Your task to perform on an android device: Show the shopping cart on costco.com. Add razer kraken to the cart on costco.com Image 0: 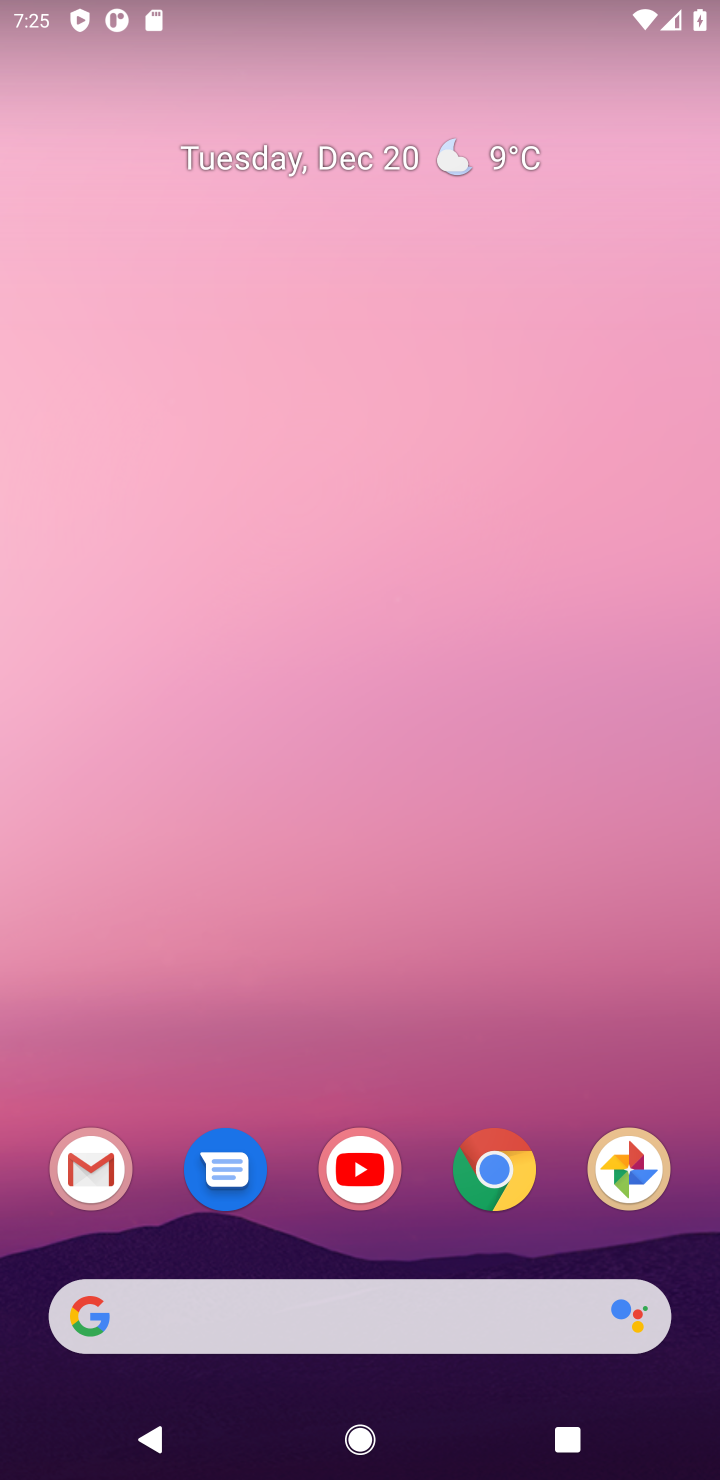
Step 0: click (489, 1186)
Your task to perform on an android device: Show the shopping cart on costco.com. Add razer kraken to the cart on costco.com Image 1: 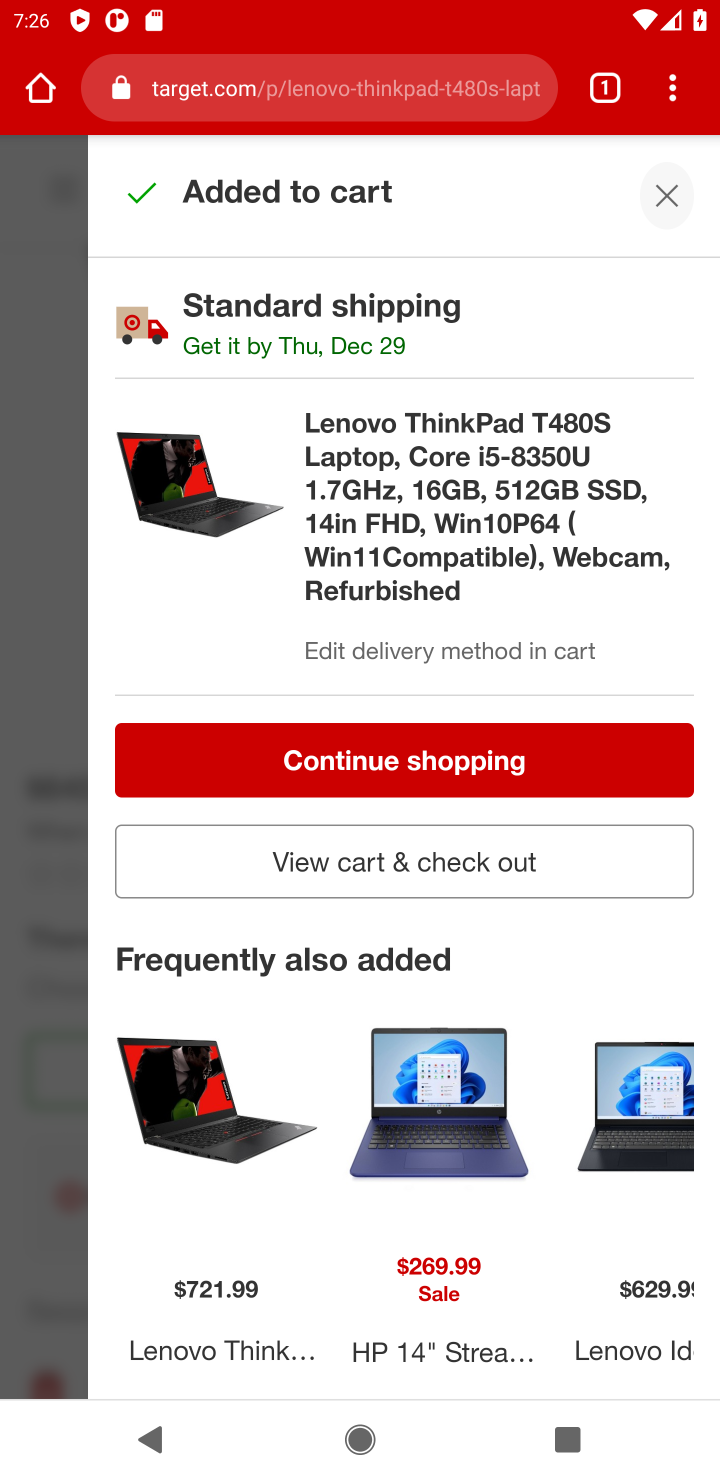
Step 1: click (669, 209)
Your task to perform on an android device: Show the shopping cart on costco.com. Add razer kraken to the cart on costco.com Image 2: 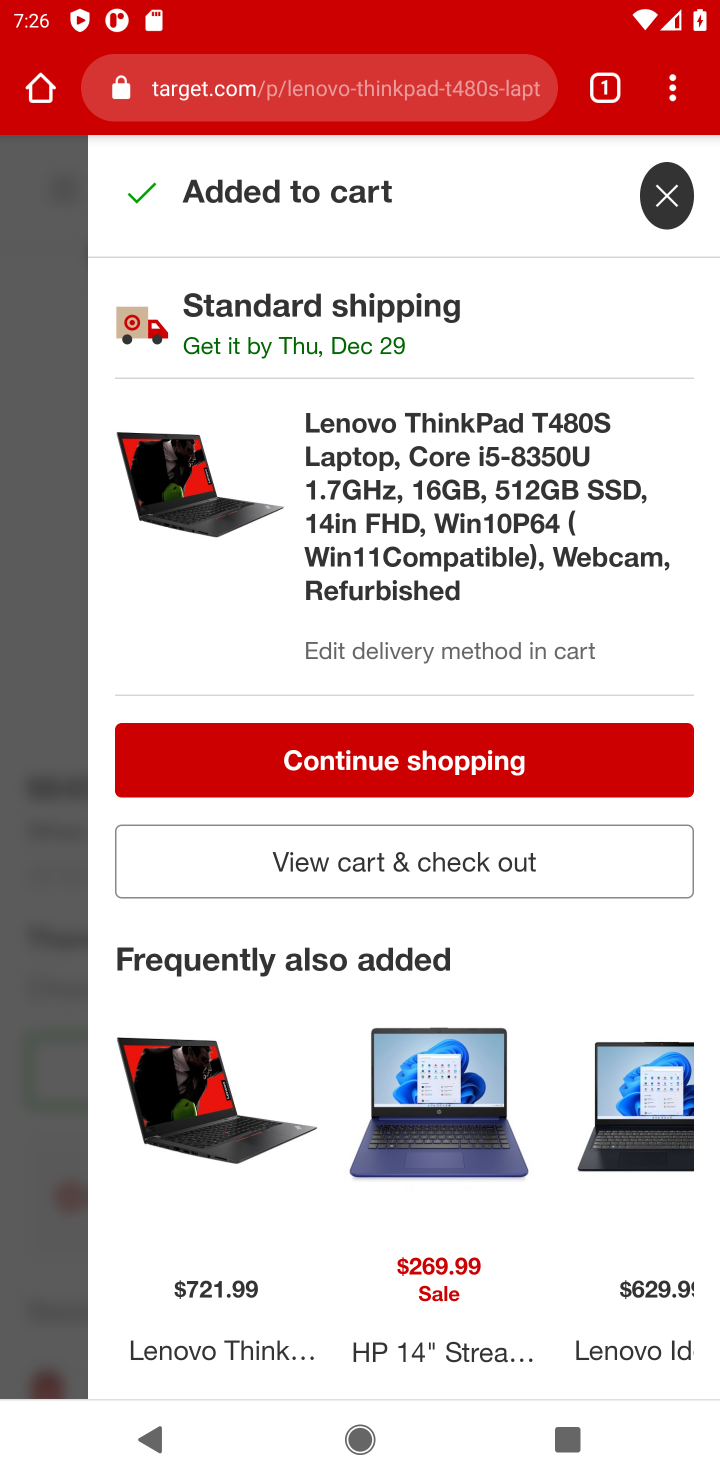
Step 2: click (403, 87)
Your task to perform on an android device: Show the shopping cart on costco.com. Add razer kraken to the cart on costco.com Image 3: 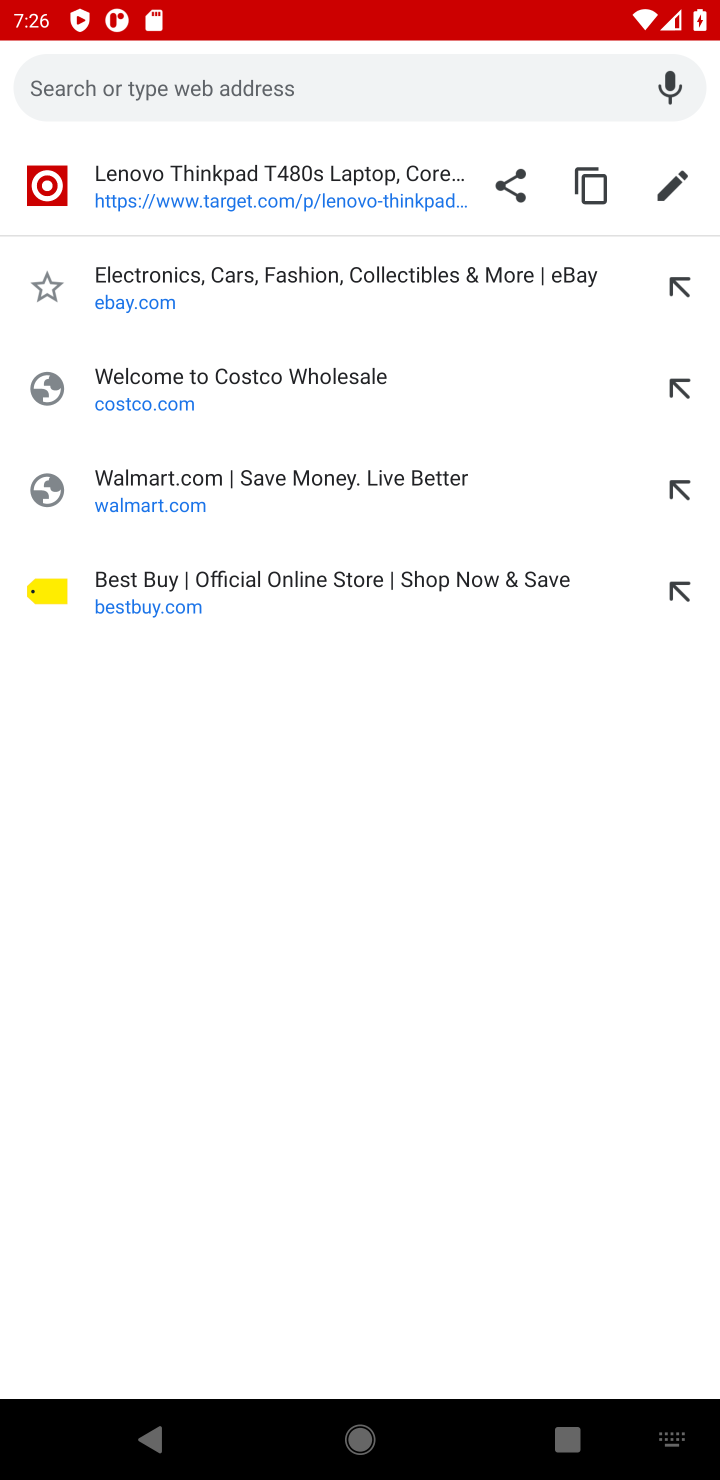
Step 3: type "costco"
Your task to perform on an android device: Show the shopping cart on costco.com. Add razer kraken to the cart on costco.com Image 4: 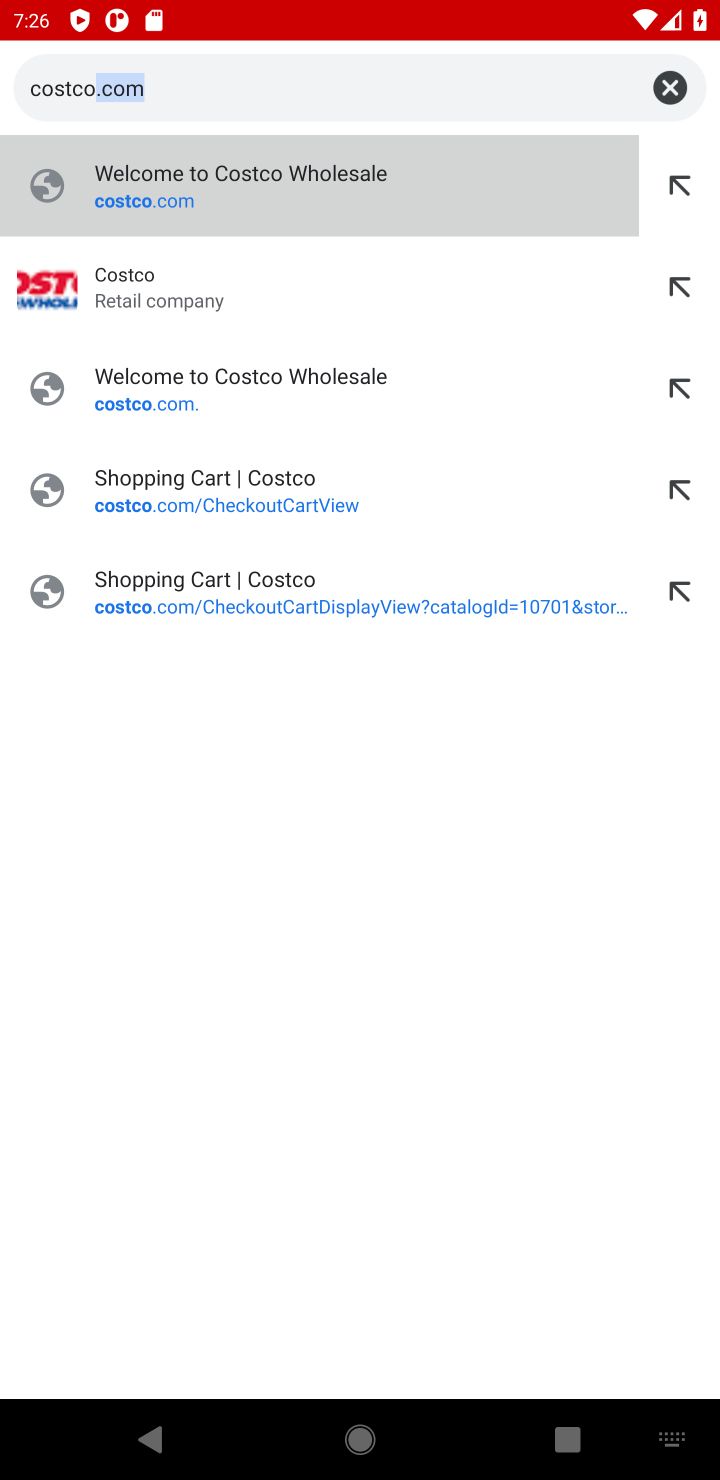
Step 4: click (205, 185)
Your task to perform on an android device: Show the shopping cart on costco.com. Add razer kraken to the cart on costco.com Image 5: 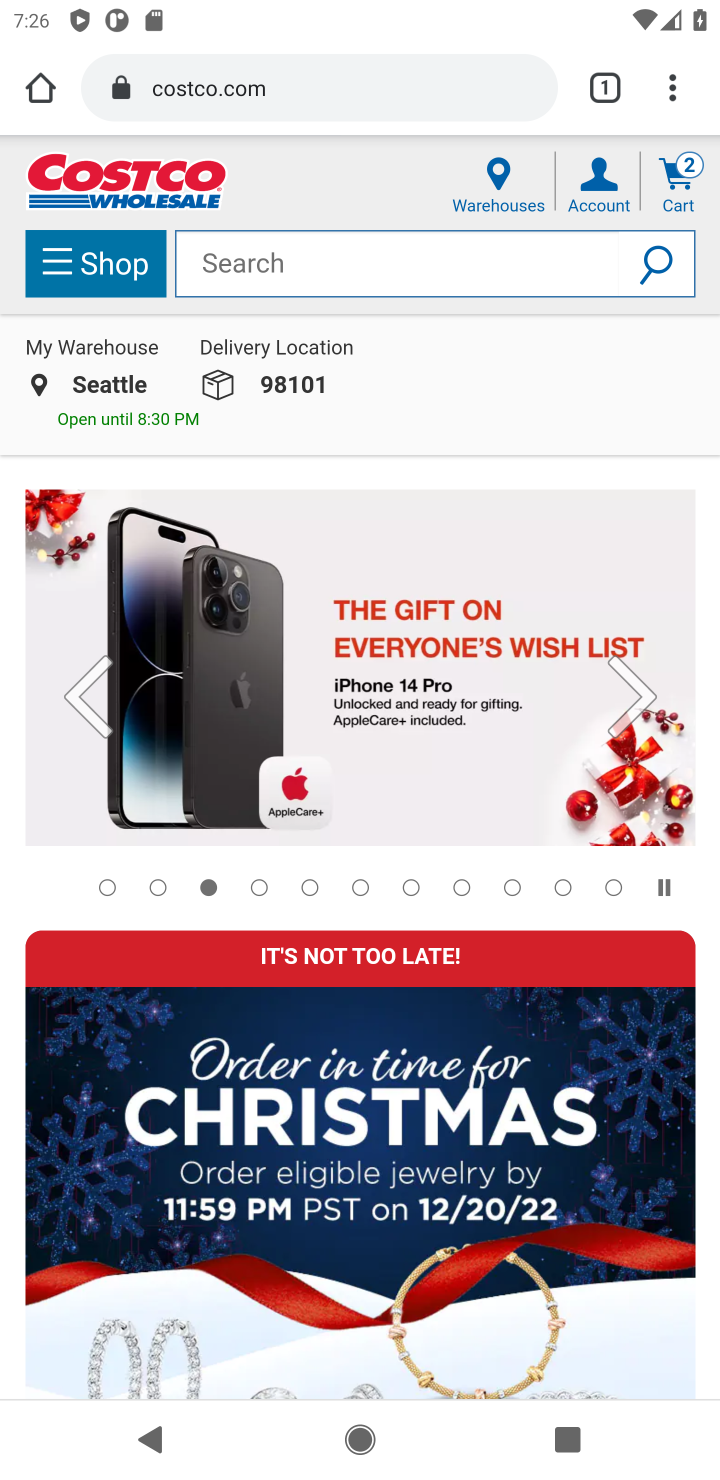
Step 5: click (325, 261)
Your task to perform on an android device: Show the shopping cart on costco.com. Add razer kraken to the cart on costco.com Image 6: 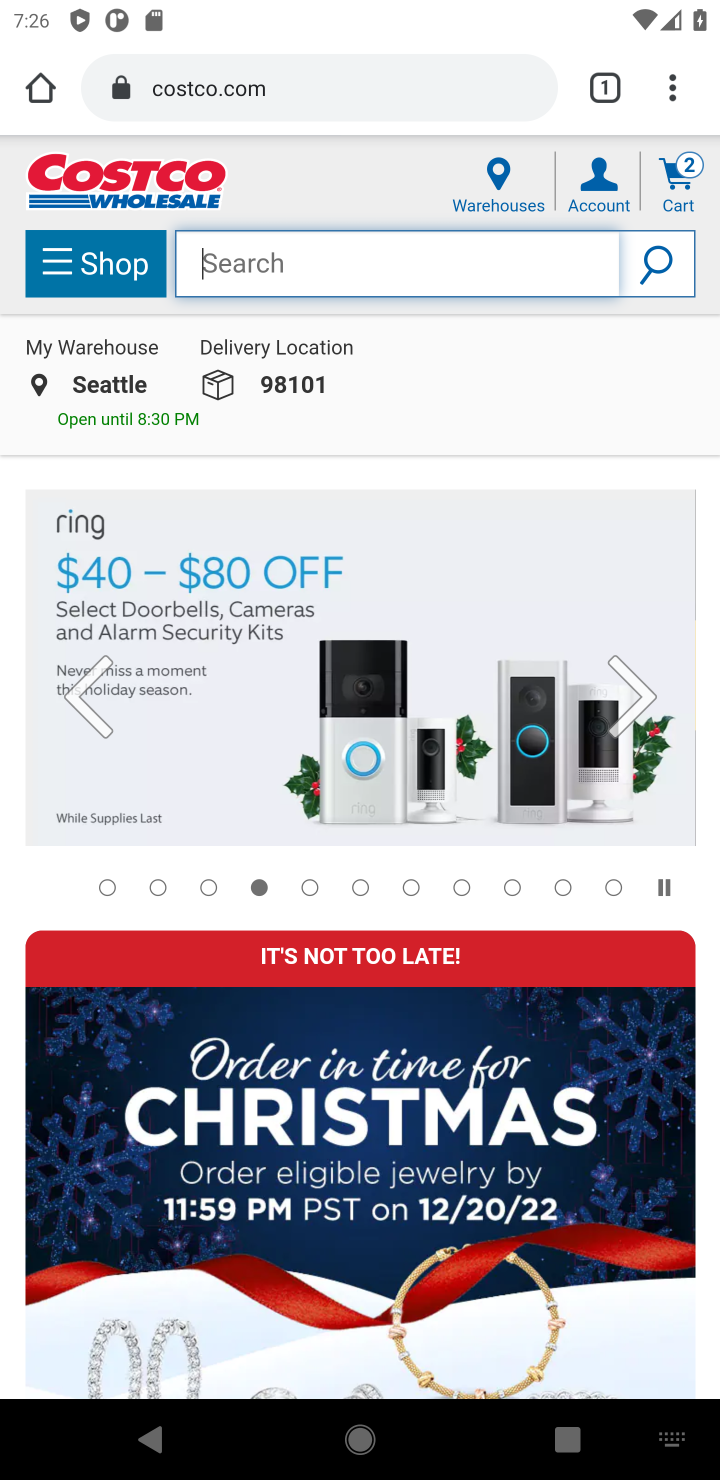
Step 6: type "razer karken"
Your task to perform on an android device: Show the shopping cart on costco.com. Add razer kraken to the cart on costco.com Image 7: 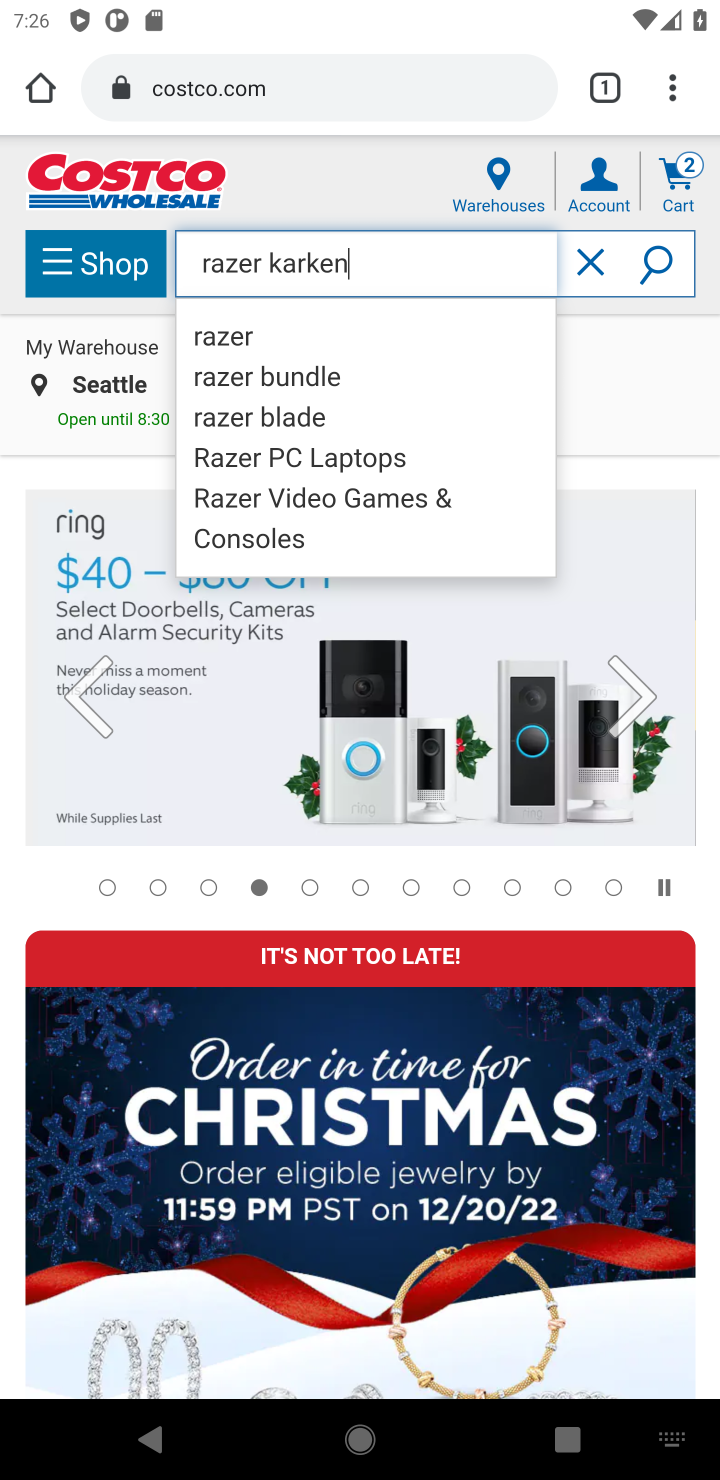
Step 7: click (653, 251)
Your task to perform on an android device: Show the shopping cart on costco.com. Add razer kraken to the cart on costco.com Image 8: 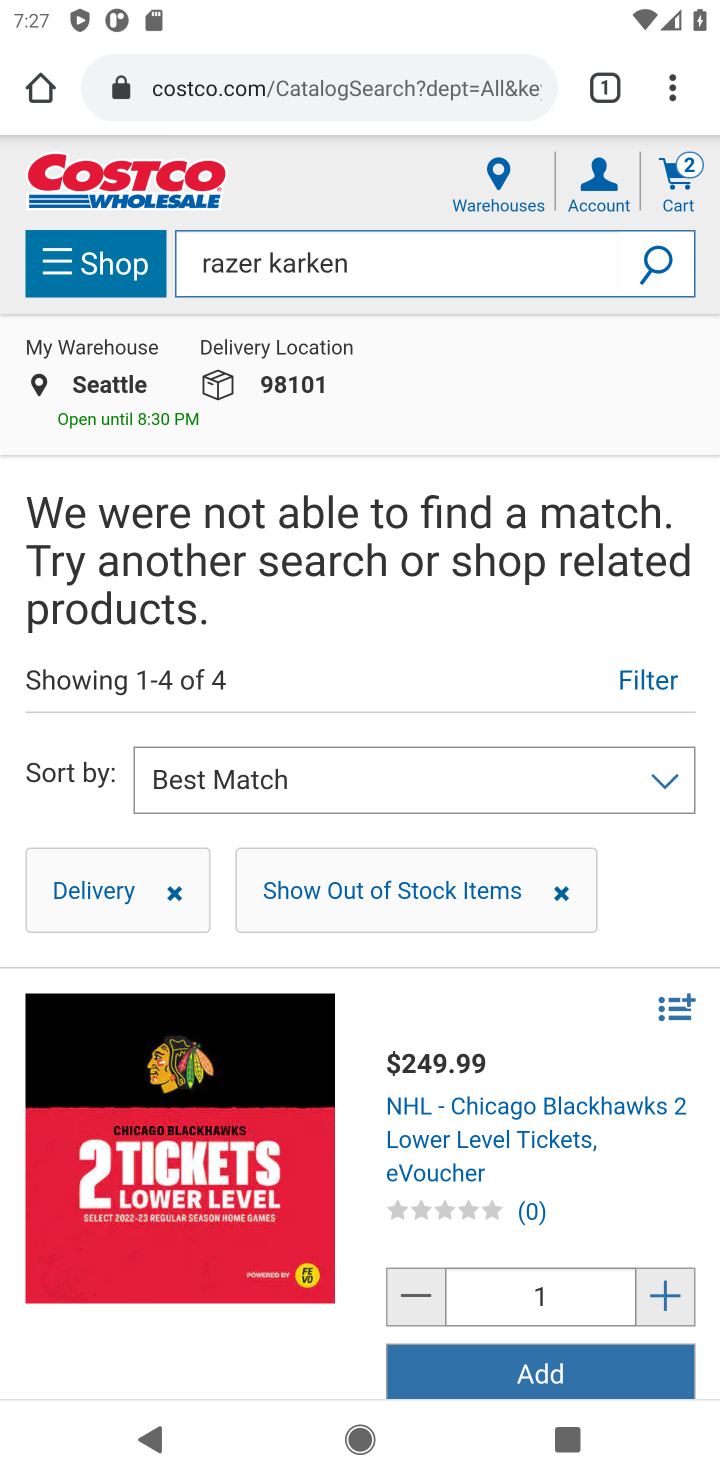
Step 8: click (481, 1350)
Your task to perform on an android device: Show the shopping cart on costco.com. Add razer kraken to the cart on costco.com Image 9: 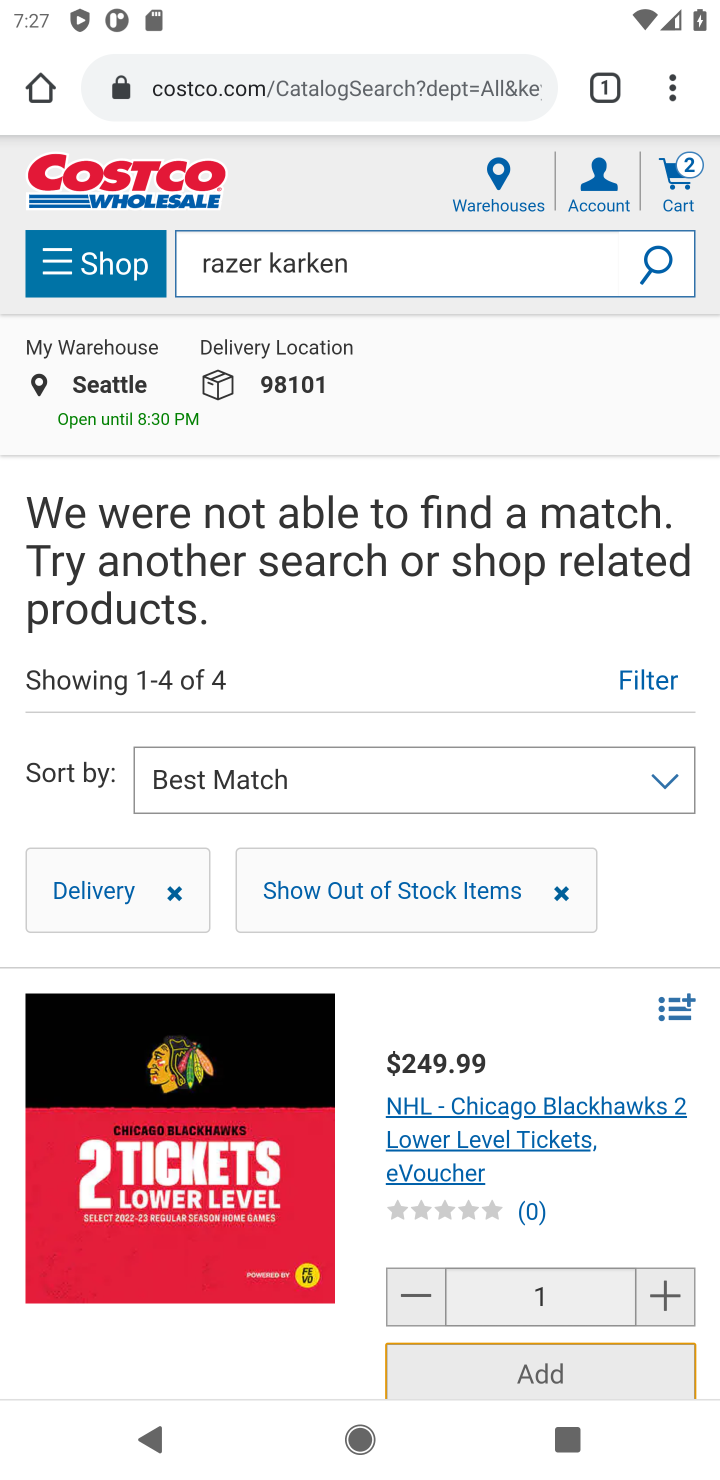
Step 9: task complete